Your task to perform on an android device: Go to accessibility settings Image 0: 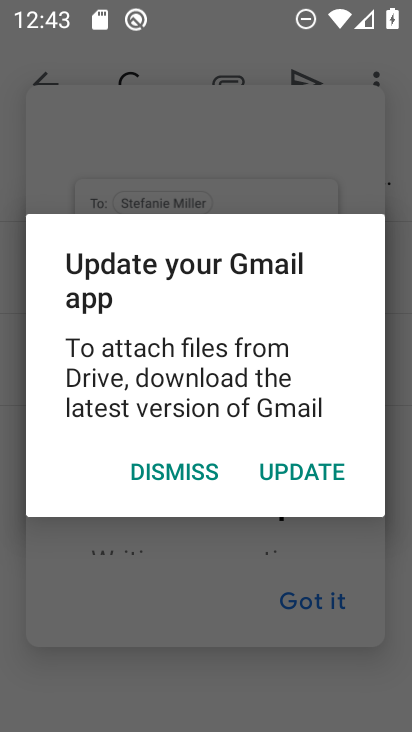
Step 0: press home button
Your task to perform on an android device: Go to accessibility settings Image 1: 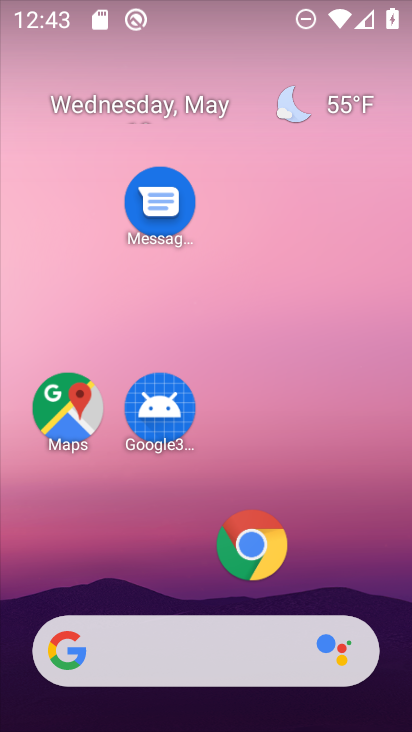
Step 1: drag from (143, 562) to (213, 119)
Your task to perform on an android device: Go to accessibility settings Image 2: 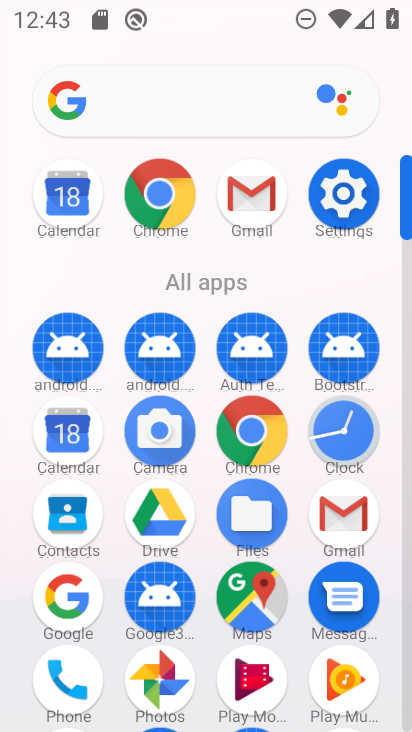
Step 2: click (345, 209)
Your task to perform on an android device: Go to accessibility settings Image 3: 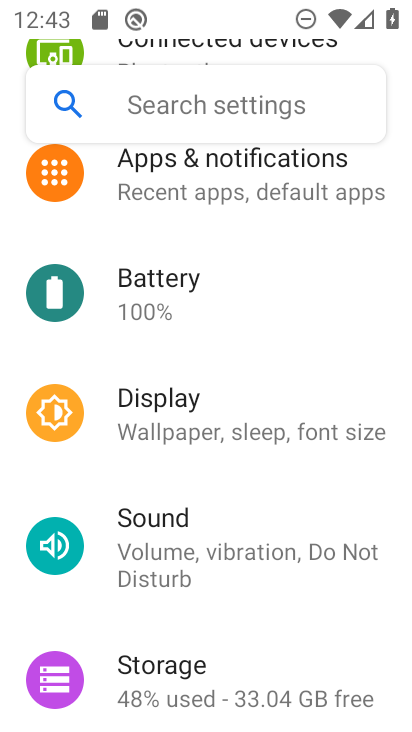
Step 3: drag from (198, 591) to (239, 335)
Your task to perform on an android device: Go to accessibility settings Image 4: 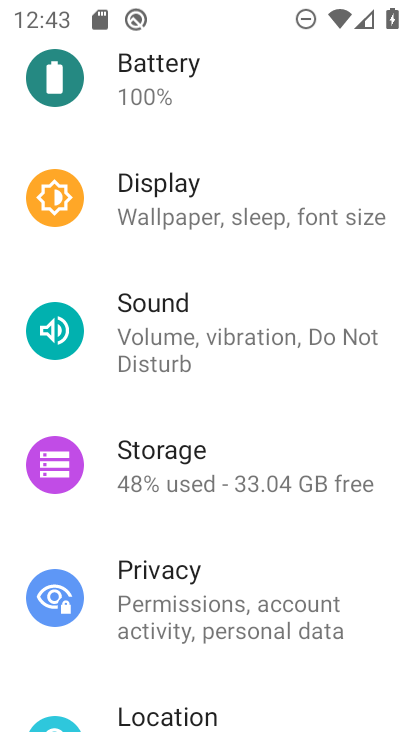
Step 4: drag from (185, 632) to (228, 380)
Your task to perform on an android device: Go to accessibility settings Image 5: 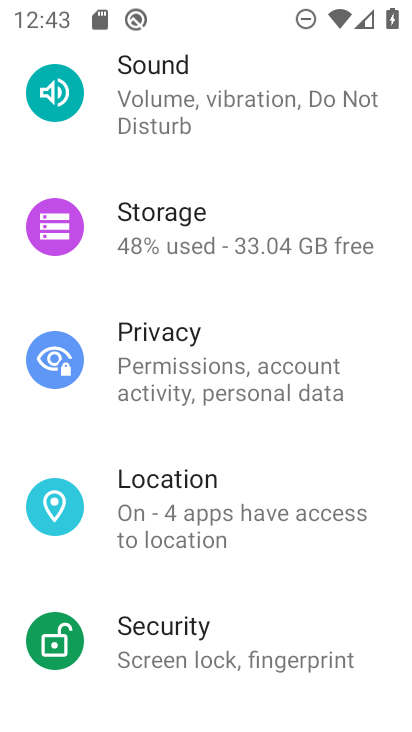
Step 5: drag from (187, 665) to (237, 339)
Your task to perform on an android device: Go to accessibility settings Image 6: 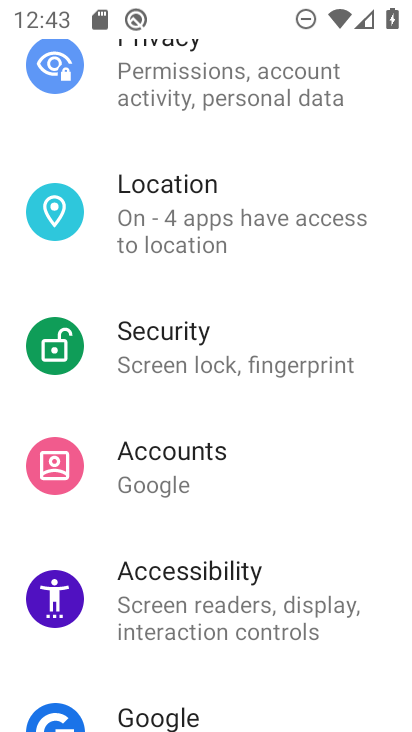
Step 6: drag from (175, 632) to (200, 512)
Your task to perform on an android device: Go to accessibility settings Image 7: 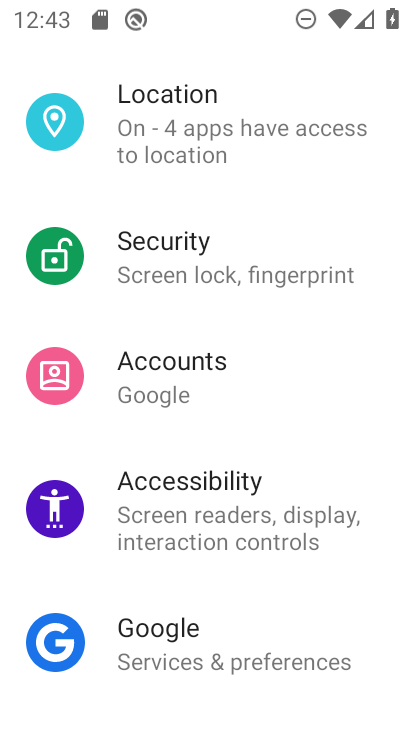
Step 7: click (187, 502)
Your task to perform on an android device: Go to accessibility settings Image 8: 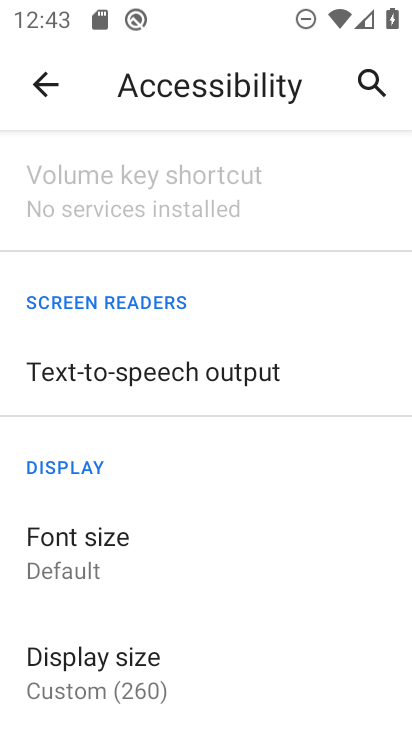
Step 8: task complete